Your task to perform on an android device: Go to display settings Image 0: 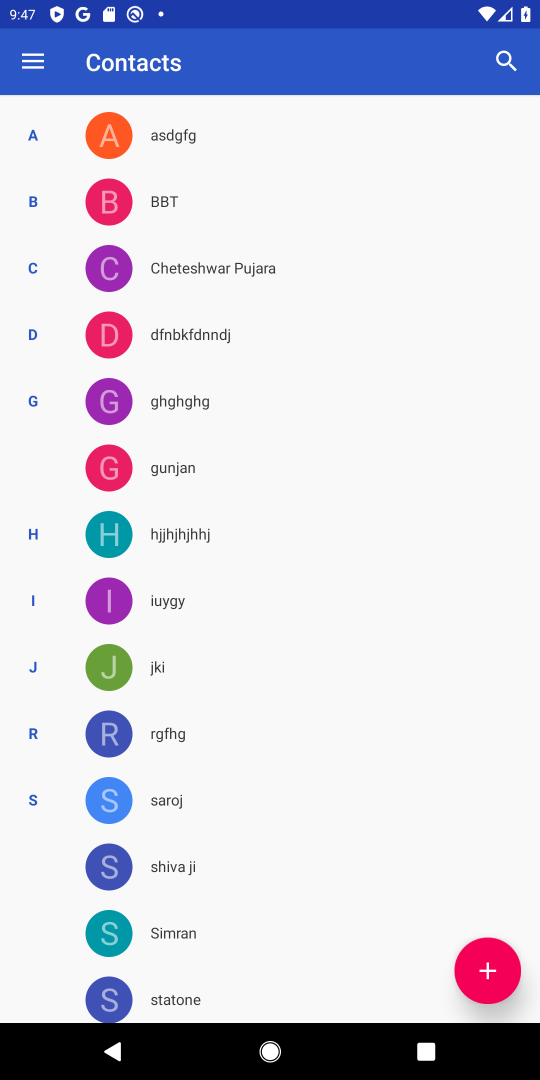
Step 0: press home button
Your task to perform on an android device: Go to display settings Image 1: 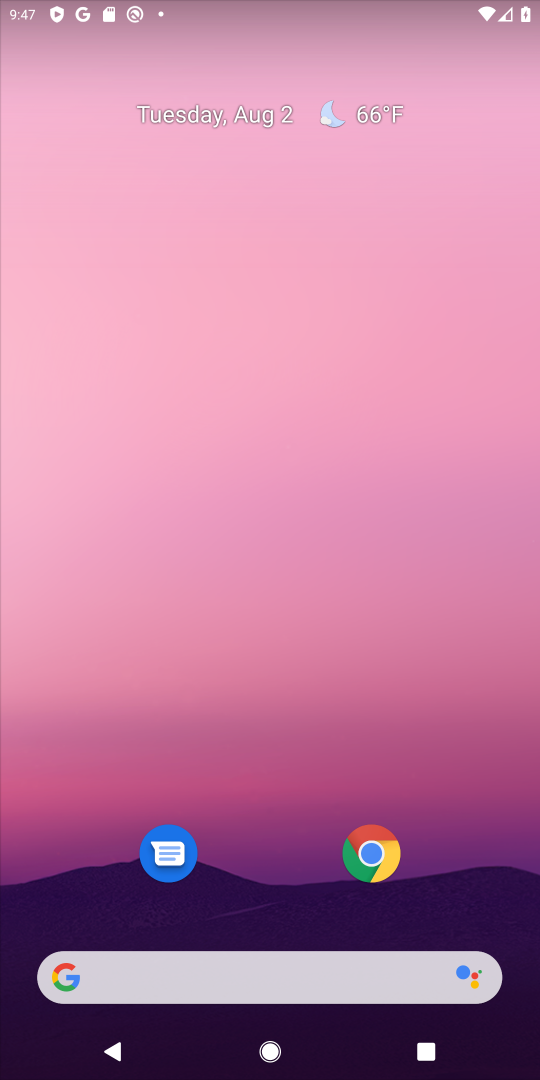
Step 1: drag from (489, 883) to (397, 176)
Your task to perform on an android device: Go to display settings Image 2: 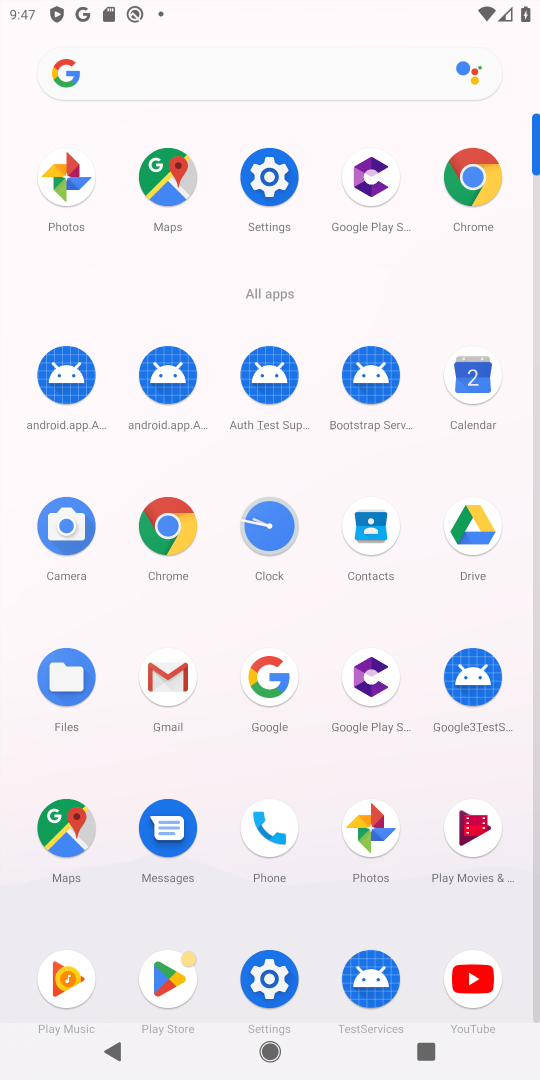
Step 2: click (271, 167)
Your task to perform on an android device: Go to display settings Image 3: 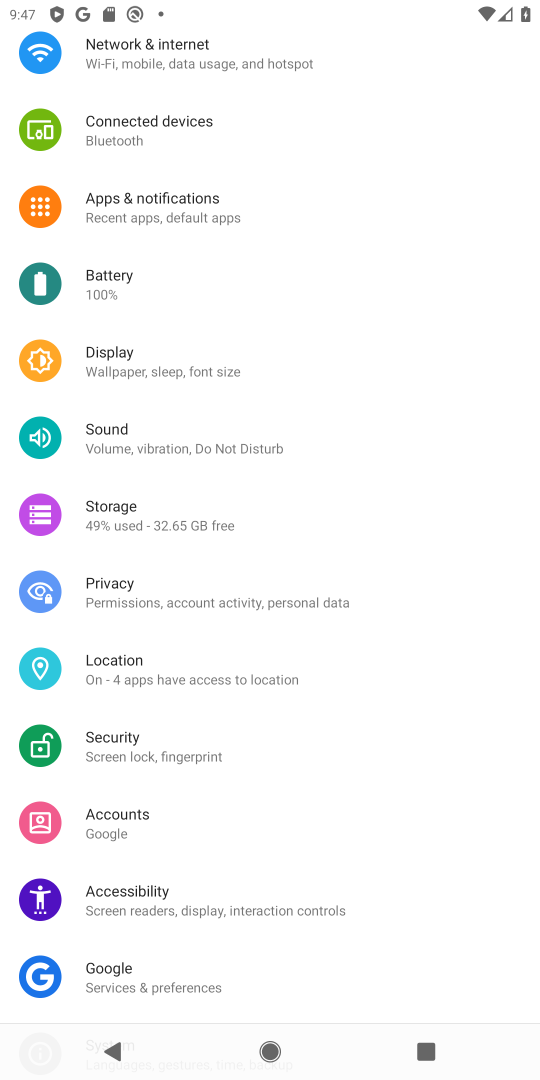
Step 3: click (201, 374)
Your task to perform on an android device: Go to display settings Image 4: 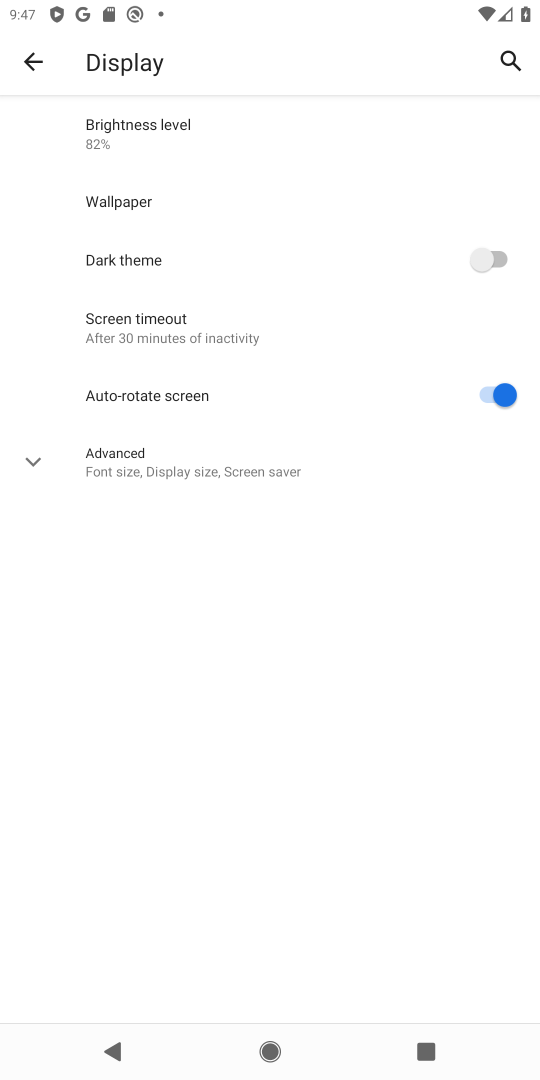
Step 4: task complete